Your task to perform on an android device: delete the emails in spam in the gmail app Image 0: 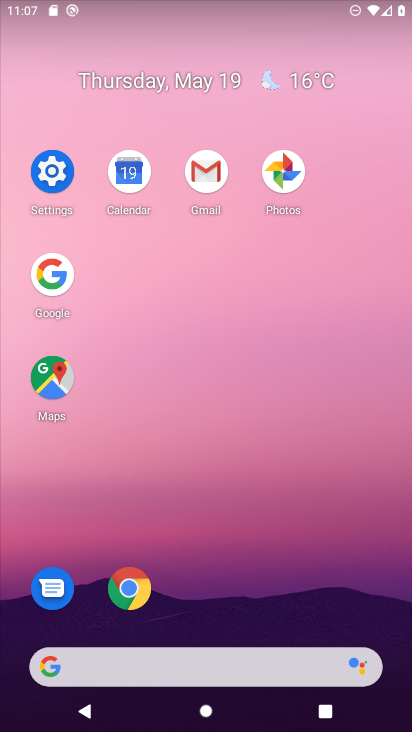
Step 0: click (212, 170)
Your task to perform on an android device: delete the emails in spam in the gmail app Image 1: 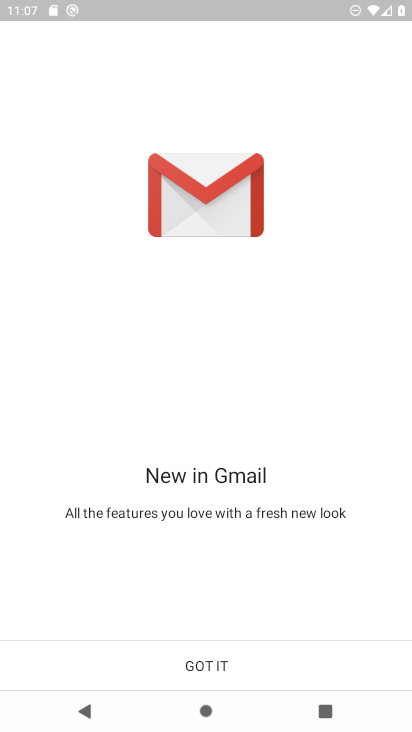
Step 1: click (241, 662)
Your task to perform on an android device: delete the emails in spam in the gmail app Image 2: 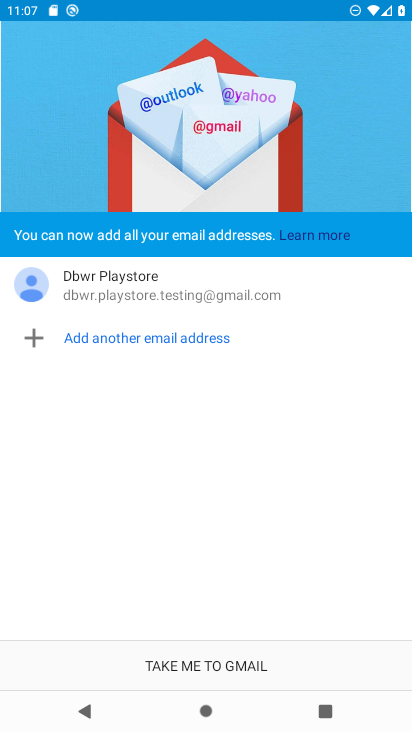
Step 2: click (242, 662)
Your task to perform on an android device: delete the emails in spam in the gmail app Image 3: 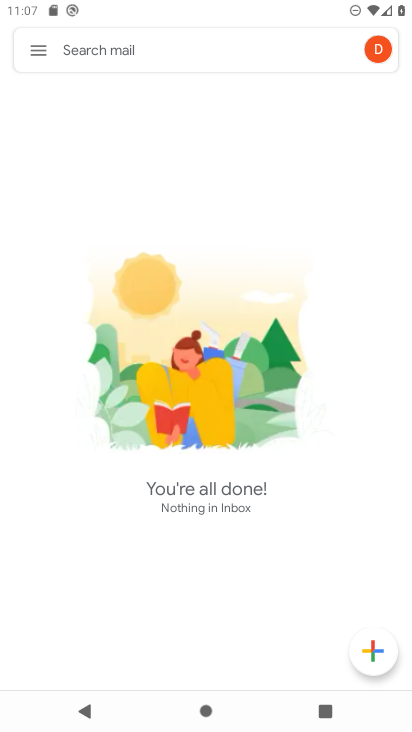
Step 3: click (35, 45)
Your task to perform on an android device: delete the emails in spam in the gmail app Image 4: 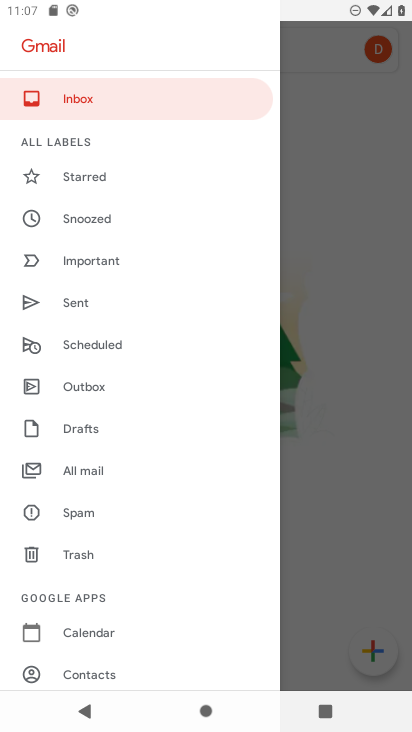
Step 4: click (103, 505)
Your task to perform on an android device: delete the emails in spam in the gmail app Image 5: 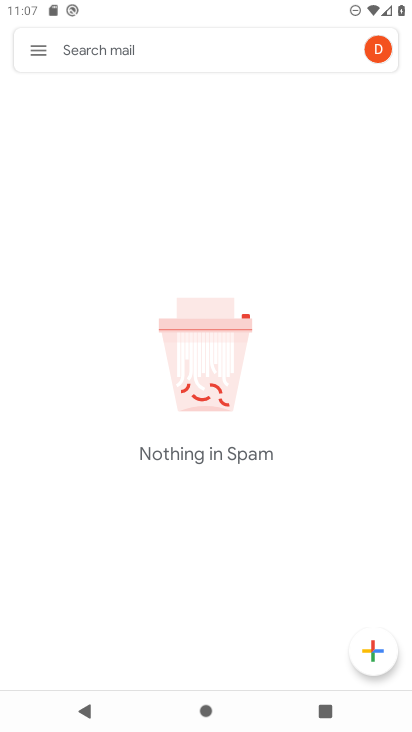
Step 5: task complete